Your task to perform on an android device: toggle location history Image 0: 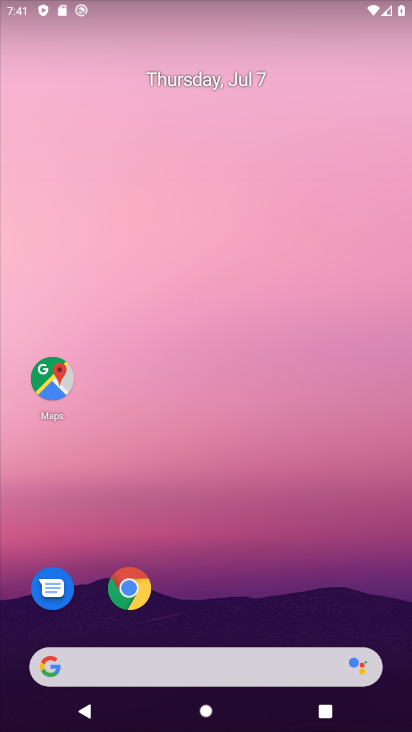
Step 0: click (64, 367)
Your task to perform on an android device: toggle location history Image 1: 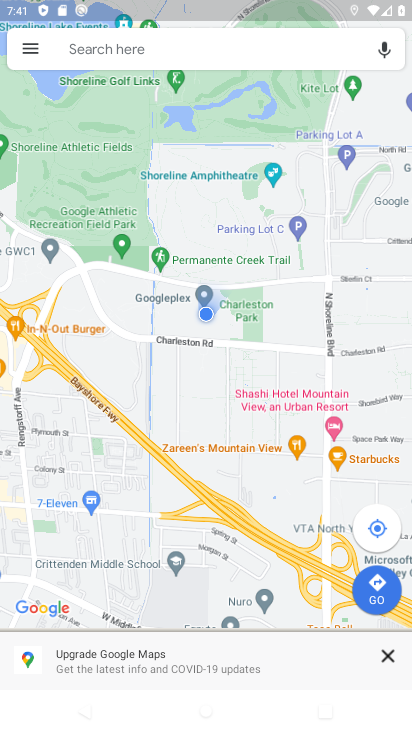
Step 1: click (23, 40)
Your task to perform on an android device: toggle location history Image 2: 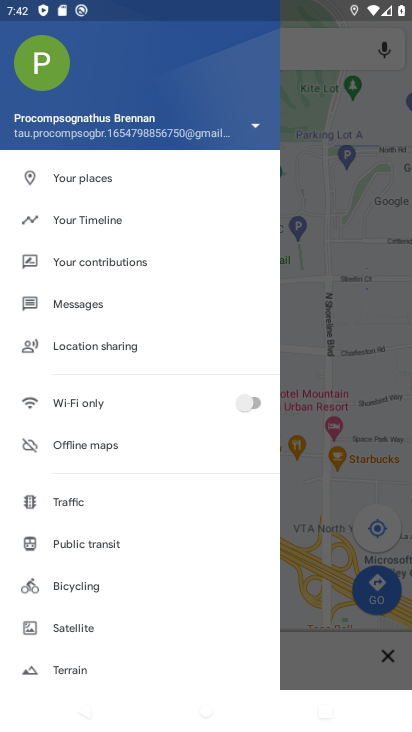
Step 2: drag from (118, 671) to (118, 377)
Your task to perform on an android device: toggle location history Image 3: 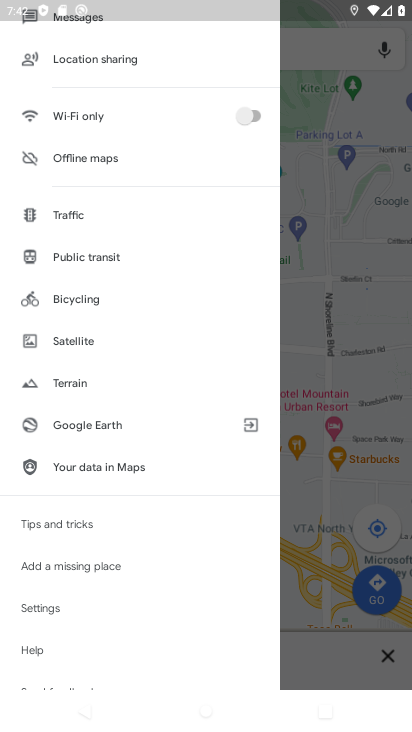
Step 3: drag from (128, 618) to (128, 180)
Your task to perform on an android device: toggle location history Image 4: 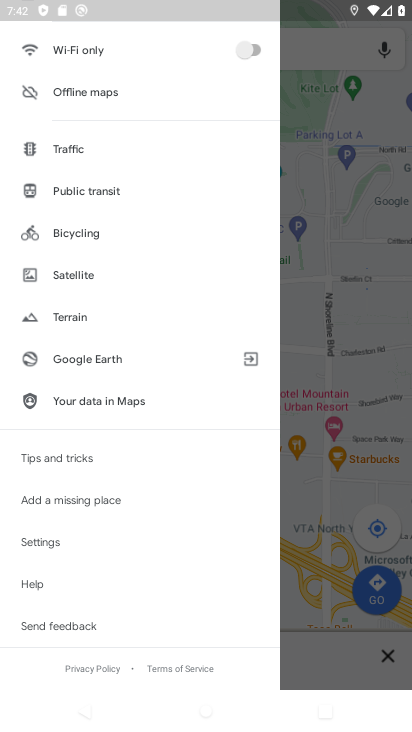
Step 4: click (40, 543)
Your task to perform on an android device: toggle location history Image 5: 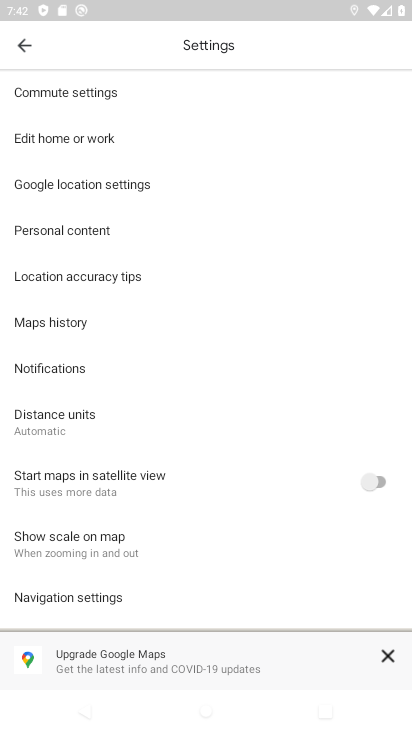
Step 5: click (111, 188)
Your task to perform on an android device: toggle location history Image 6: 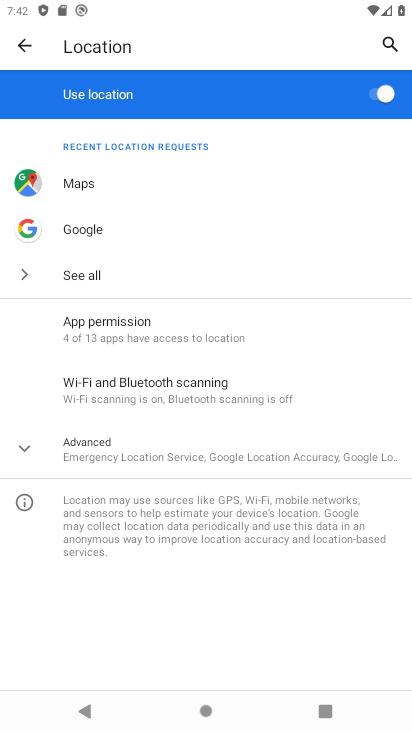
Step 6: click (84, 269)
Your task to perform on an android device: toggle location history Image 7: 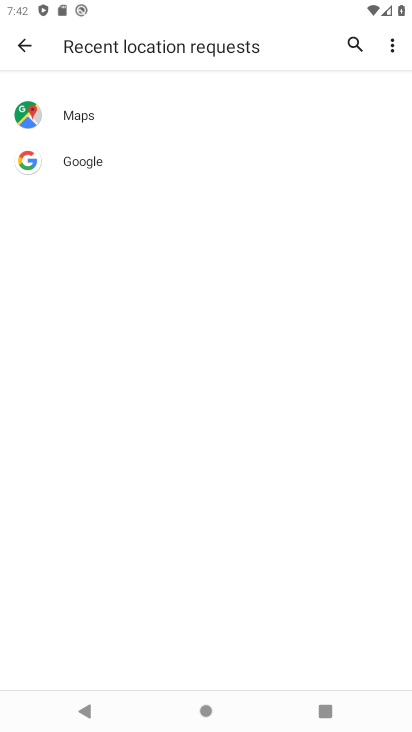
Step 7: click (16, 35)
Your task to perform on an android device: toggle location history Image 8: 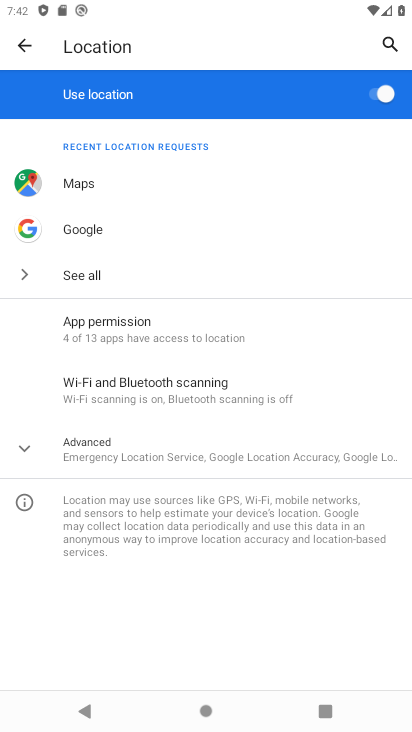
Step 8: task complete